Your task to perform on an android device: View the shopping cart on amazon.com. Search for "macbook pro" on amazon.com, select the first entry, add it to the cart, then select checkout. Image 0: 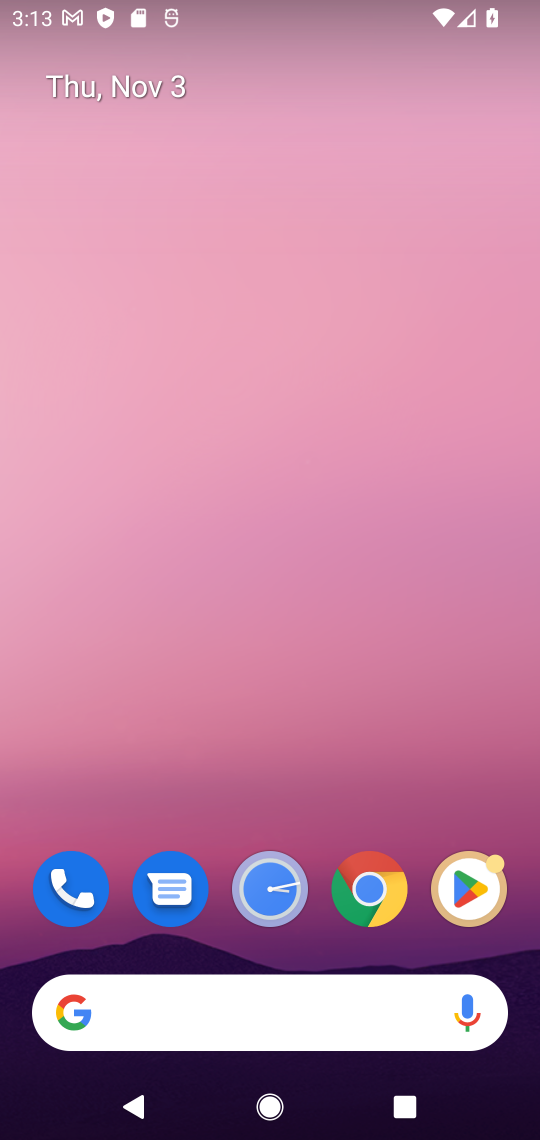
Step 0: click (75, 1009)
Your task to perform on an android device: View the shopping cart on amazon.com. Search for "macbook pro" on amazon.com, select the first entry, add it to the cart, then select checkout. Image 1: 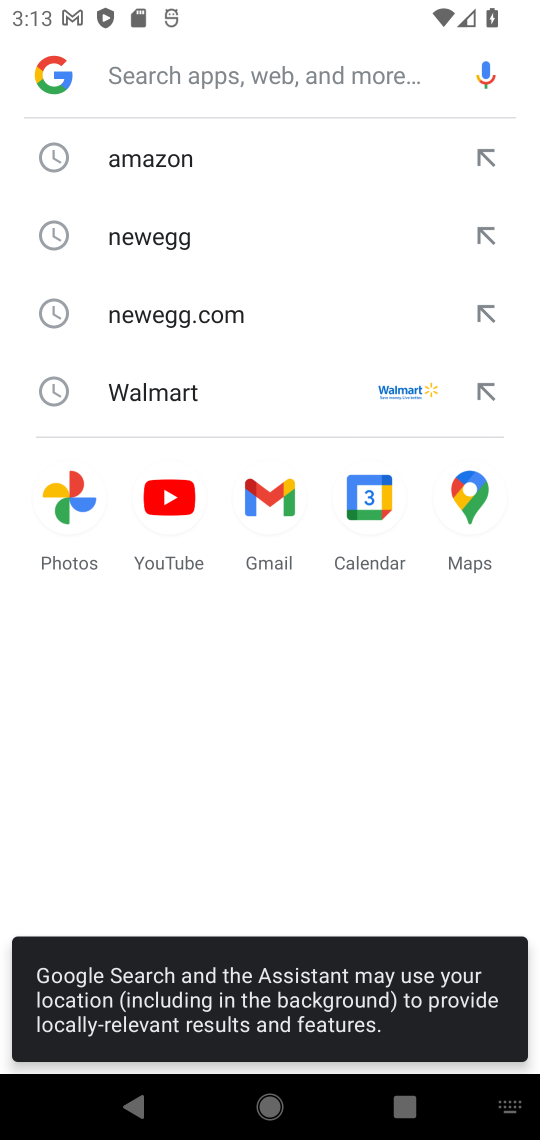
Step 1: click (215, 159)
Your task to perform on an android device: View the shopping cart on amazon.com. Search for "macbook pro" on amazon.com, select the first entry, add it to the cart, then select checkout. Image 2: 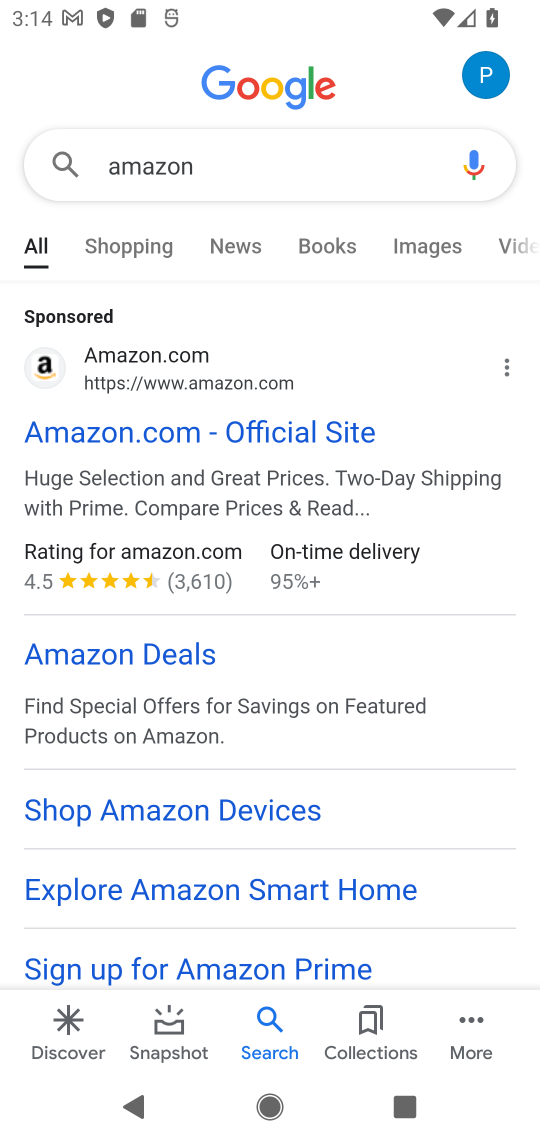
Step 2: click (268, 436)
Your task to perform on an android device: View the shopping cart on amazon.com. Search for "macbook pro" on amazon.com, select the first entry, add it to the cart, then select checkout. Image 3: 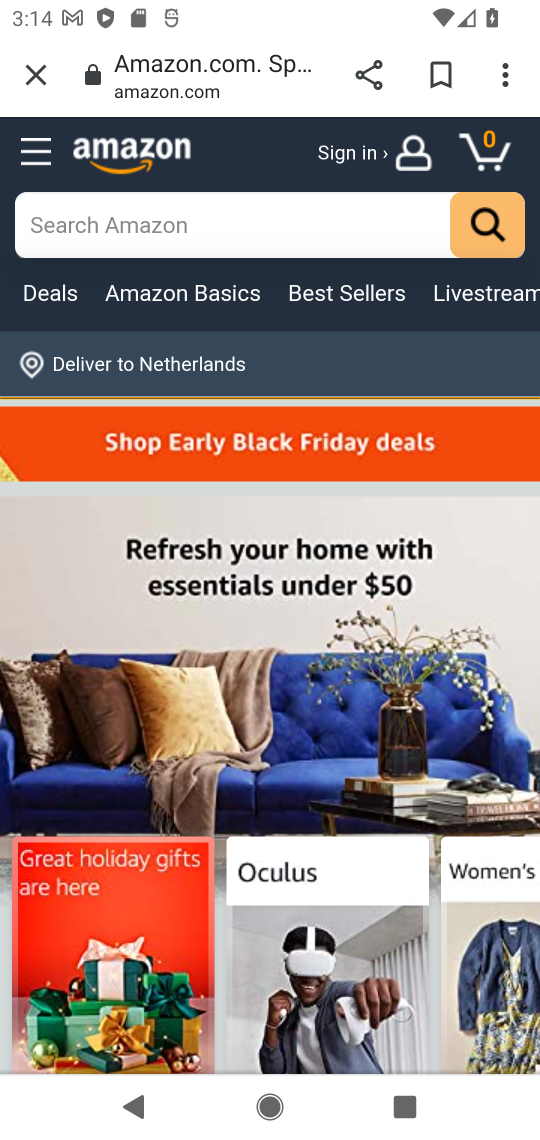
Step 3: click (250, 238)
Your task to perform on an android device: View the shopping cart on amazon.com. Search for "macbook pro" on amazon.com, select the first entry, add it to the cart, then select checkout. Image 4: 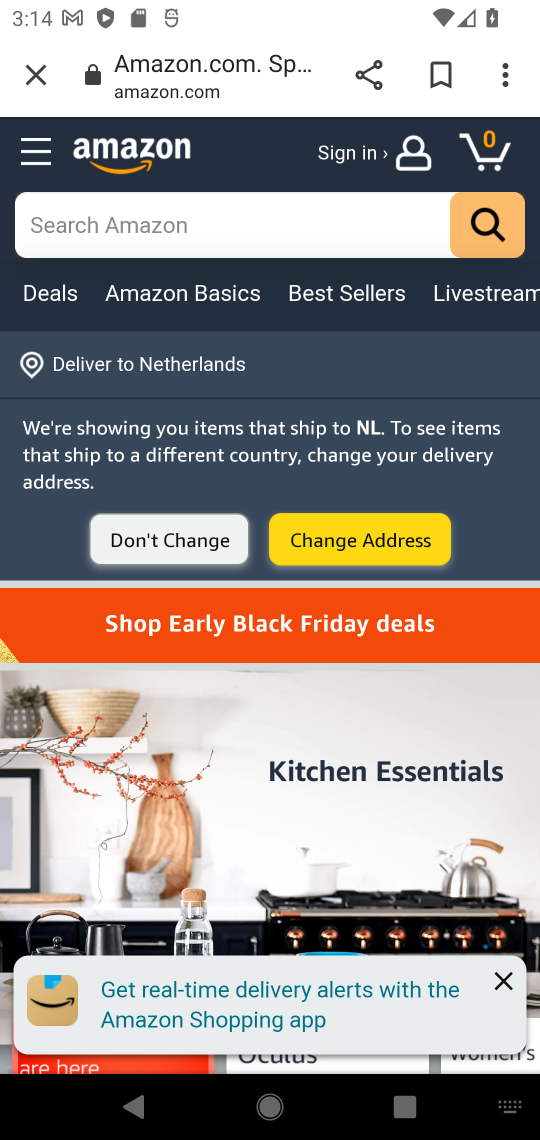
Step 4: type "macbook pro"
Your task to perform on an android device: View the shopping cart on amazon.com. Search for "macbook pro" on amazon.com, select the first entry, add it to the cart, then select checkout. Image 5: 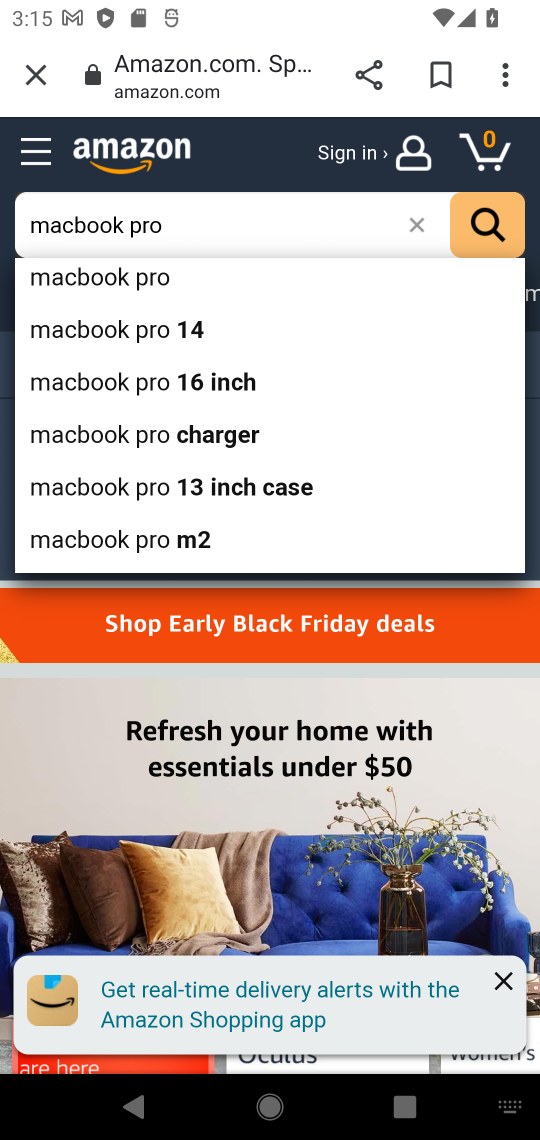
Step 5: click (174, 285)
Your task to perform on an android device: View the shopping cart on amazon.com. Search for "macbook pro" on amazon.com, select the first entry, add it to the cart, then select checkout. Image 6: 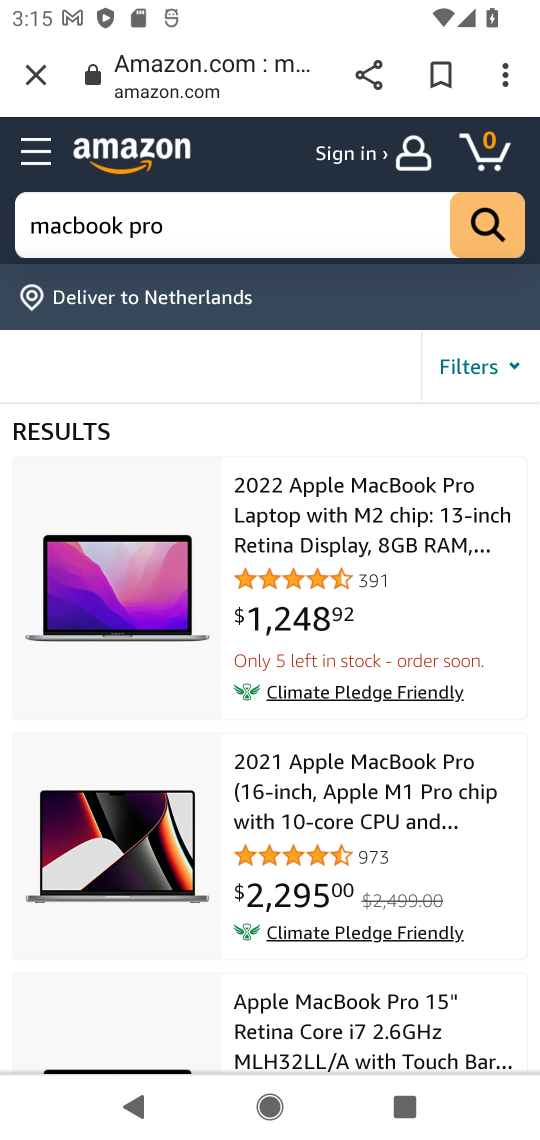
Step 6: click (321, 514)
Your task to perform on an android device: View the shopping cart on amazon.com. Search for "macbook pro" on amazon.com, select the first entry, add it to the cart, then select checkout. Image 7: 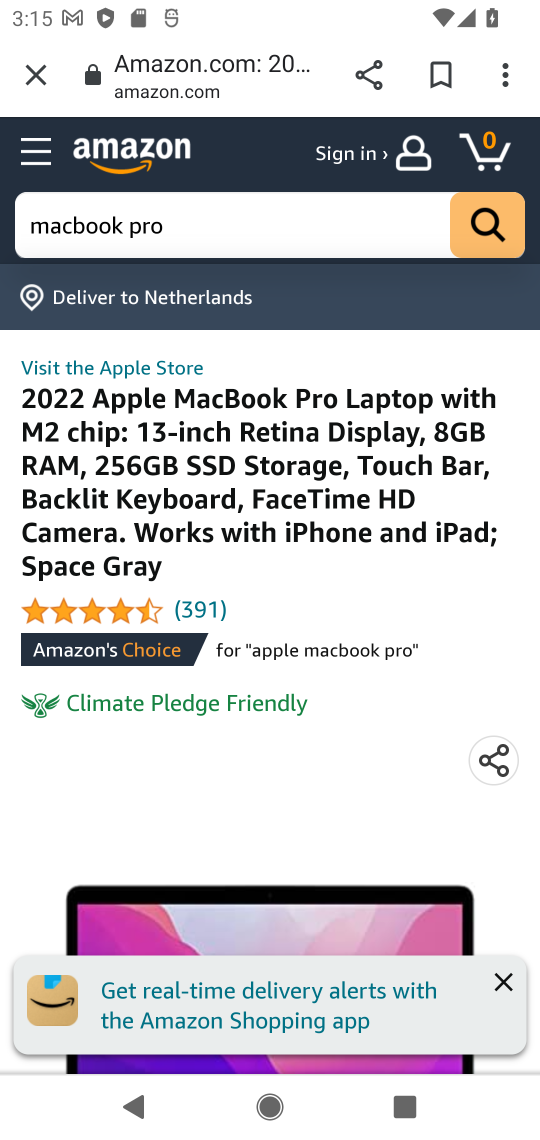
Step 7: drag from (310, 776) to (285, 204)
Your task to perform on an android device: View the shopping cart on amazon.com. Search for "macbook pro" on amazon.com, select the first entry, add it to the cart, then select checkout. Image 8: 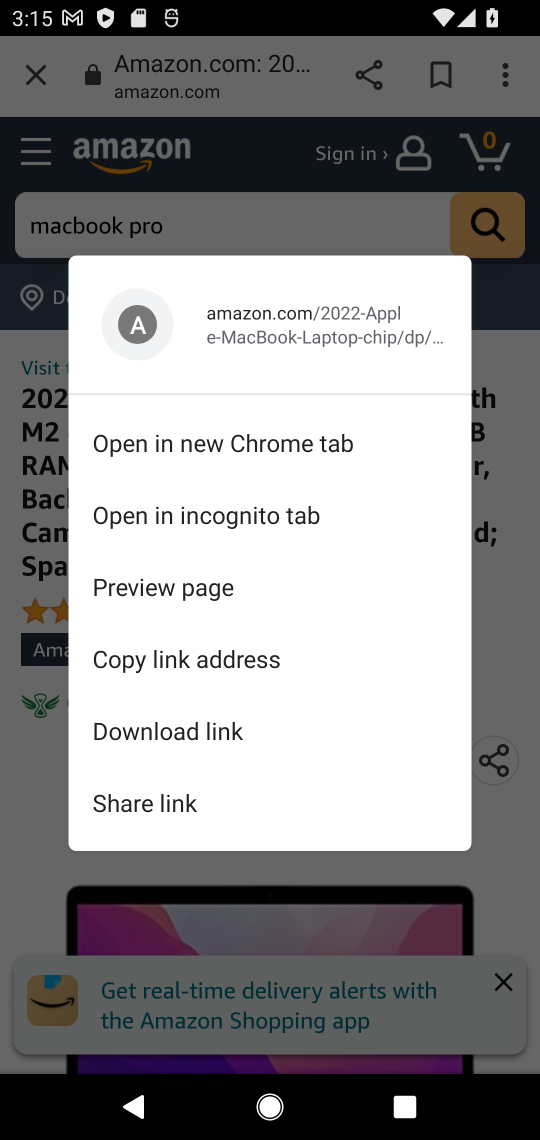
Step 8: click (520, 523)
Your task to perform on an android device: View the shopping cart on amazon.com. Search for "macbook pro" on amazon.com, select the first entry, add it to the cart, then select checkout. Image 9: 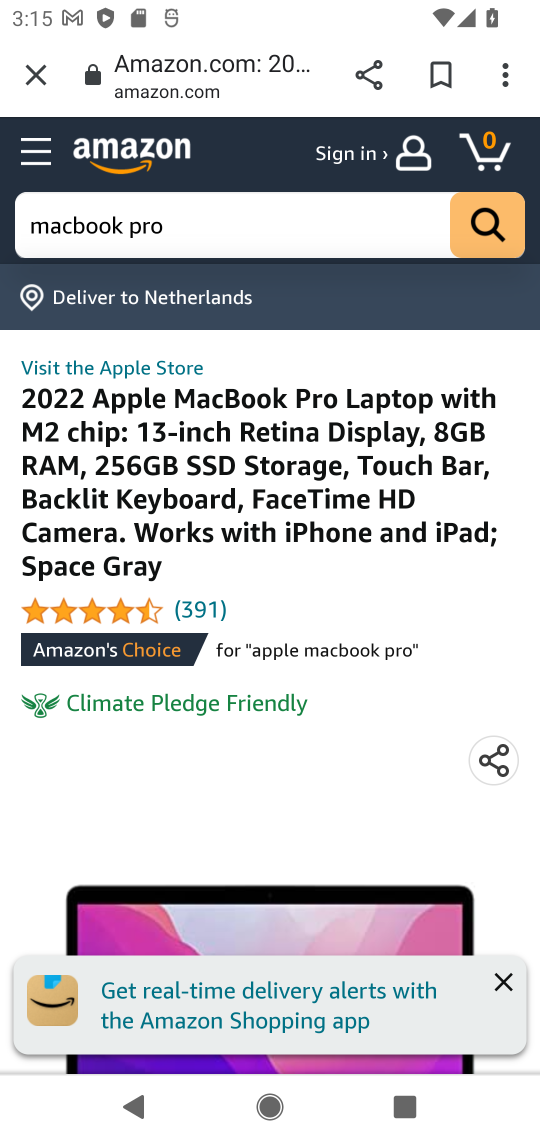
Step 9: click (507, 987)
Your task to perform on an android device: View the shopping cart on amazon.com. Search for "macbook pro" on amazon.com, select the first entry, add it to the cart, then select checkout. Image 10: 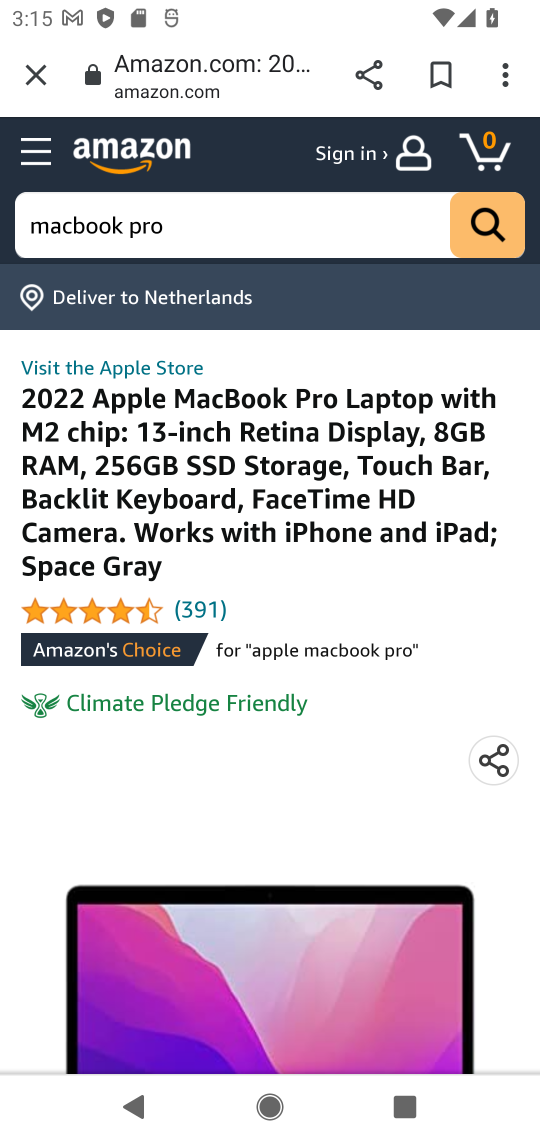
Step 10: task complete